Your task to perform on an android device: change timer sound Image 0: 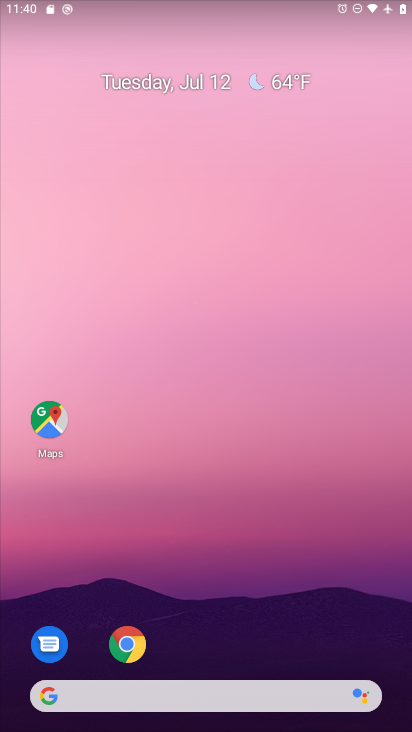
Step 0: drag from (265, 646) to (244, 126)
Your task to perform on an android device: change timer sound Image 1: 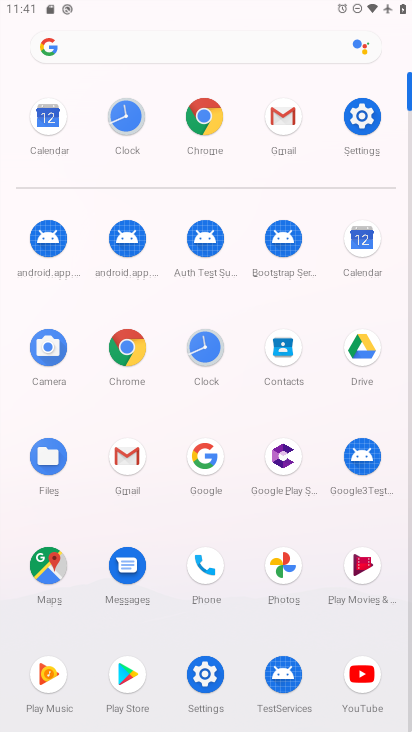
Step 1: click (115, 123)
Your task to perform on an android device: change timer sound Image 2: 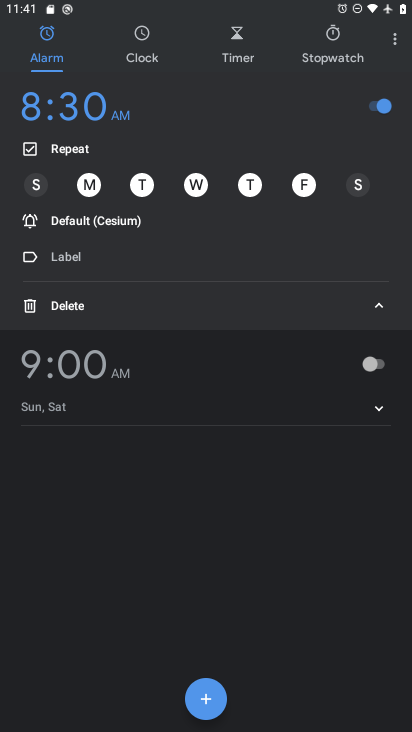
Step 2: click (221, 35)
Your task to perform on an android device: change timer sound Image 3: 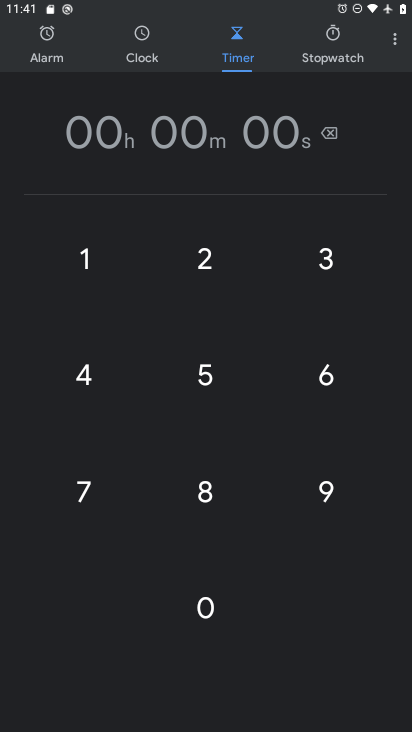
Step 3: task complete